Your task to perform on an android device: Go to accessibility settings Image 0: 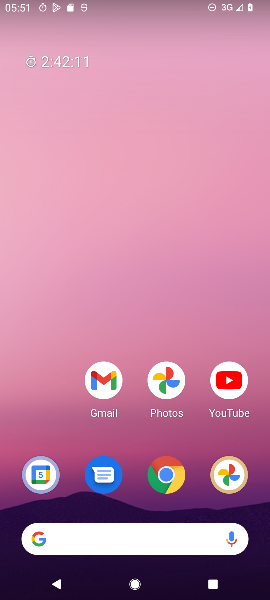
Step 0: drag from (58, 442) to (61, 189)
Your task to perform on an android device: Go to accessibility settings Image 1: 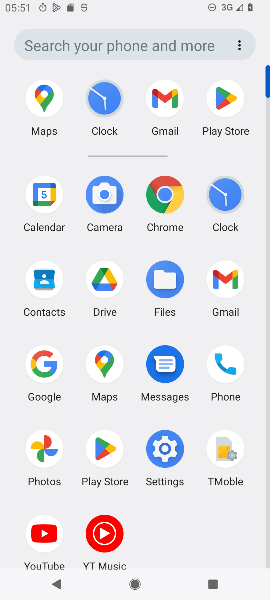
Step 1: click (161, 444)
Your task to perform on an android device: Go to accessibility settings Image 2: 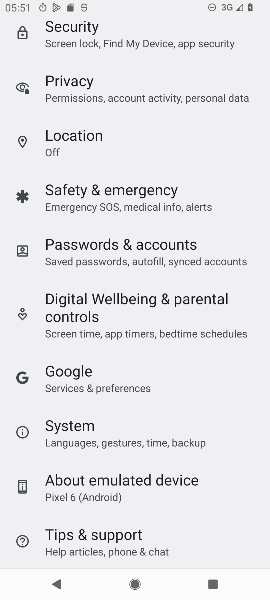
Step 2: drag from (232, 192) to (238, 307)
Your task to perform on an android device: Go to accessibility settings Image 3: 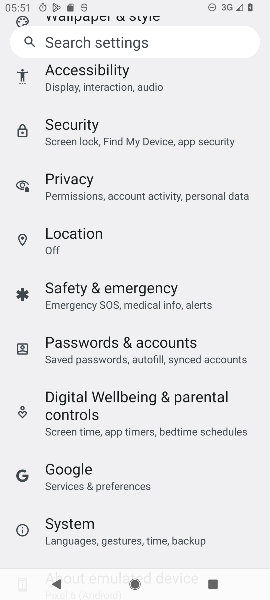
Step 3: drag from (248, 121) to (243, 227)
Your task to perform on an android device: Go to accessibility settings Image 4: 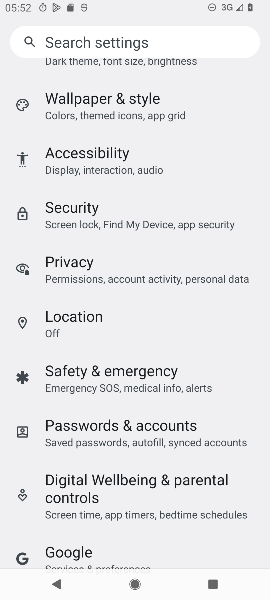
Step 4: drag from (238, 109) to (239, 219)
Your task to perform on an android device: Go to accessibility settings Image 5: 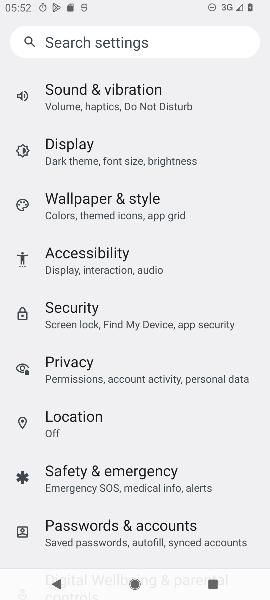
Step 5: drag from (226, 148) to (229, 244)
Your task to perform on an android device: Go to accessibility settings Image 6: 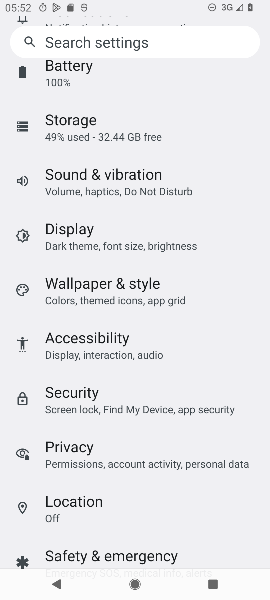
Step 6: drag from (237, 165) to (238, 291)
Your task to perform on an android device: Go to accessibility settings Image 7: 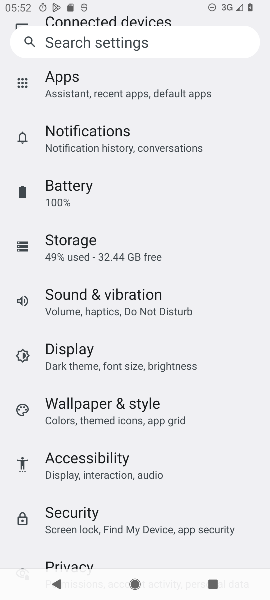
Step 7: drag from (218, 194) to (221, 286)
Your task to perform on an android device: Go to accessibility settings Image 8: 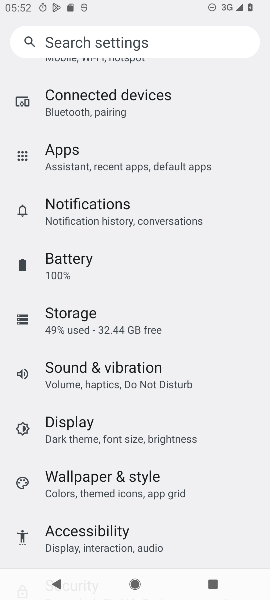
Step 8: drag from (241, 123) to (248, 267)
Your task to perform on an android device: Go to accessibility settings Image 9: 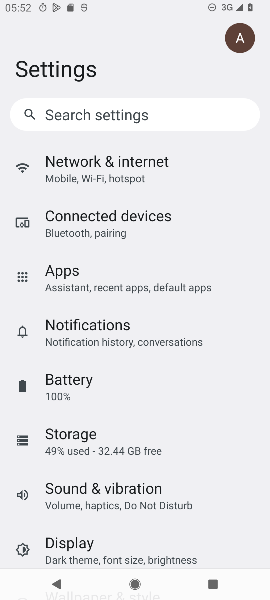
Step 9: drag from (226, 393) to (232, 314)
Your task to perform on an android device: Go to accessibility settings Image 10: 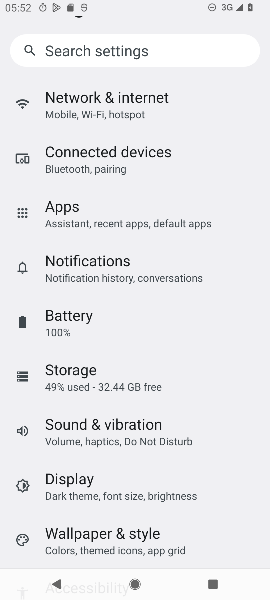
Step 10: drag from (231, 404) to (229, 318)
Your task to perform on an android device: Go to accessibility settings Image 11: 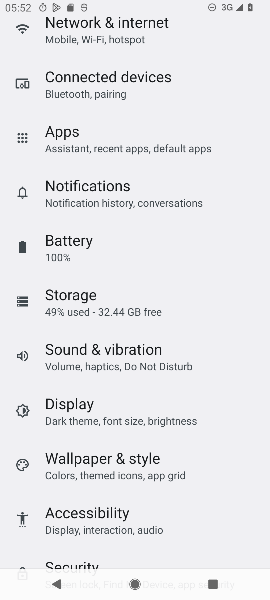
Step 11: drag from (216, 435) to (216, 324)
Your task to perform on an android device: Go to accessibility settings Image 12: 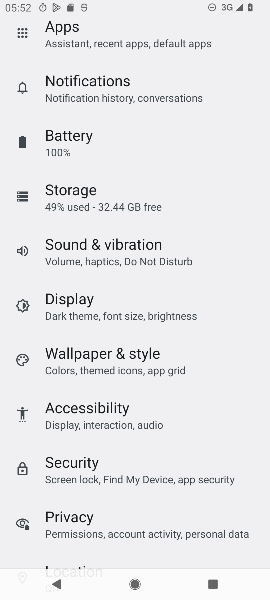
Step 12: drag from (204, 414) to (208, 311)
Your task to perform on an android device: Go to accessibility settings Image 13: 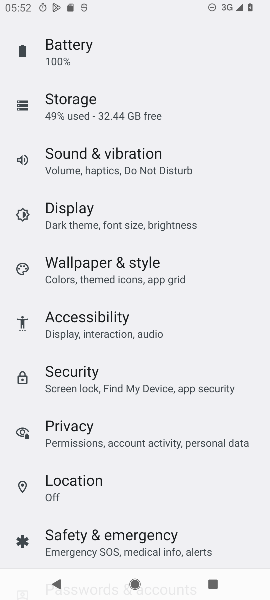
Step 13: click (164, 322)
Your task to perform on an android device: Go to accessibility settings Image 14: 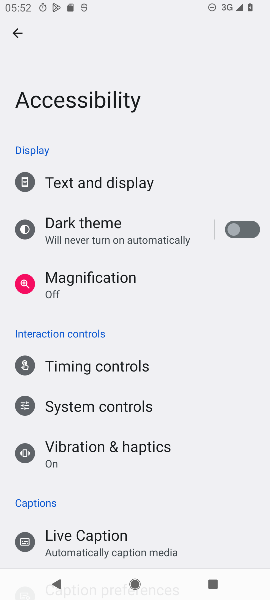
Step 14: task complete